Your task to perform on an android device: Open the Play Movies app and select the watchlist tab. Image 0: 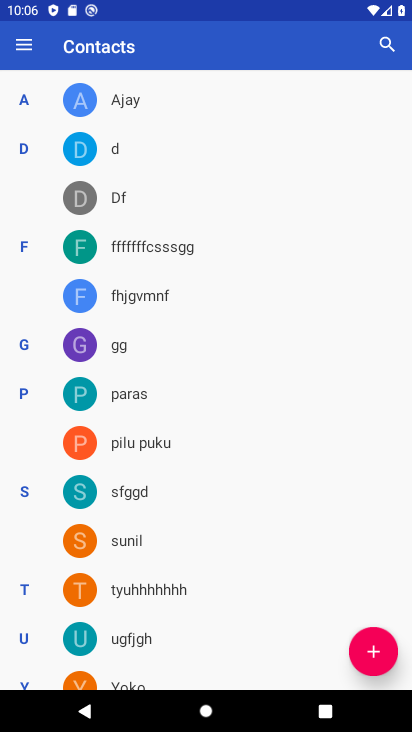
Step 0: press home button
Your task to perform on an android device: Open the Play Movies app and select the watchlist tab. Image 1: 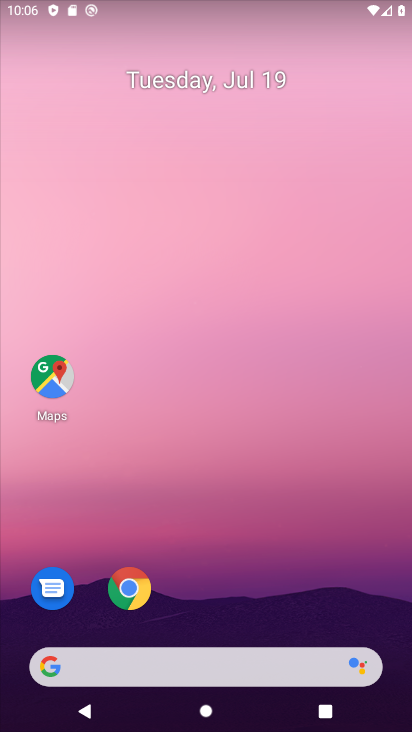
Step 1: drag from (241, 555) to (245, 190)
Your task to perform on an android device: Open the Play Movies app and select the watchlist tab. Image 2: 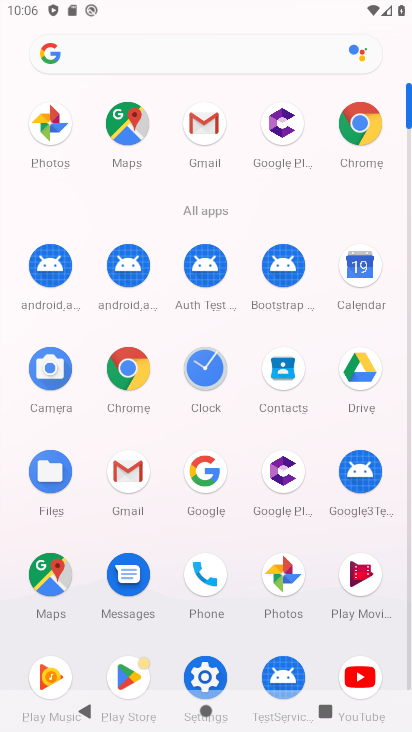
Step 2: click (354, 567)
Your task to perform on an android device: Open the Play Movies app and select the watchlist tab. Image 3: 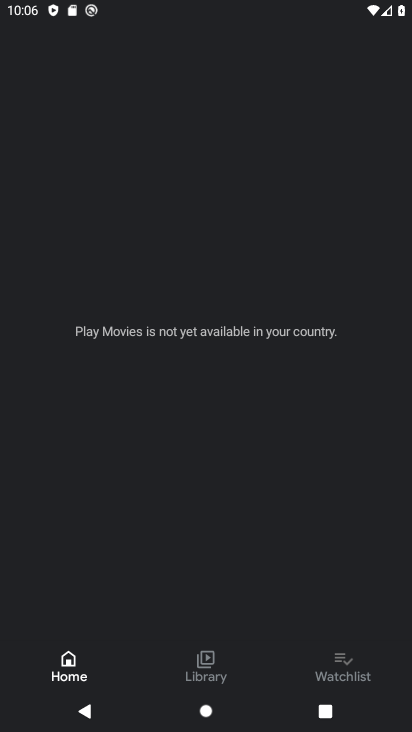
Step 3: click (382, 676)
Your task to perform on an android device: Open the Play Movies app and select the watchlist tab. Image 4: 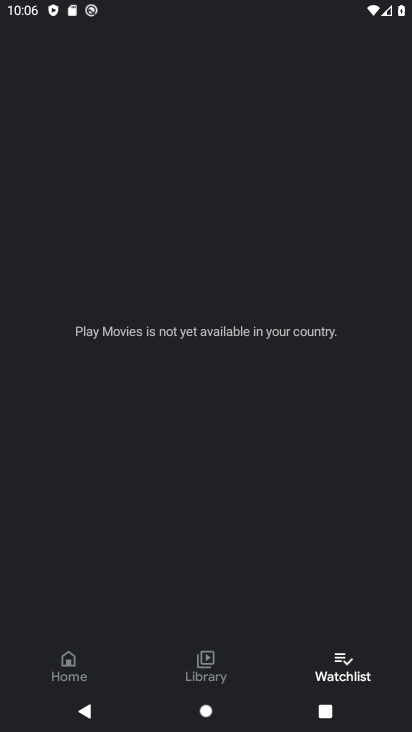
Step 4: task complete